Your task to perform on an android device: turn on location history Image 0: 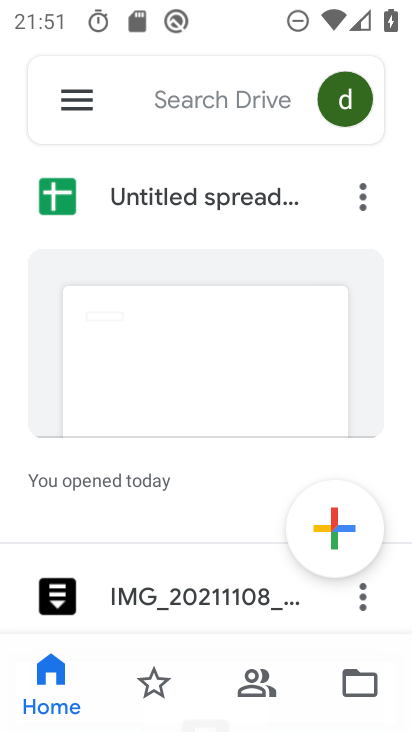
Step 0: press home button
Your task to perform on an android device: turn on location history Image 1: 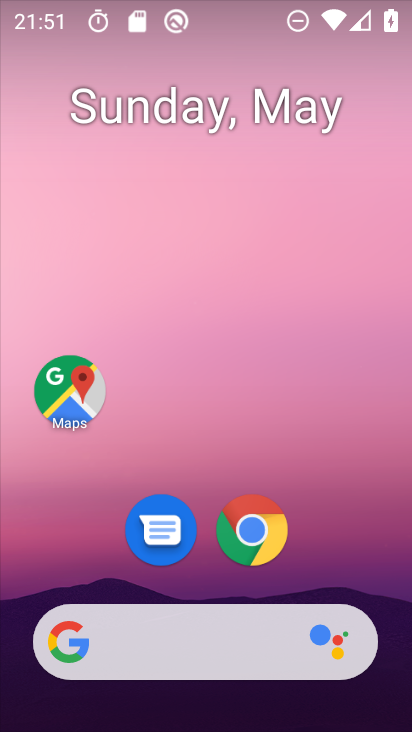
Step 1: drag from (221, 687) to (207, 261)
Your task to perform on an android device: turn on location history Image 2: 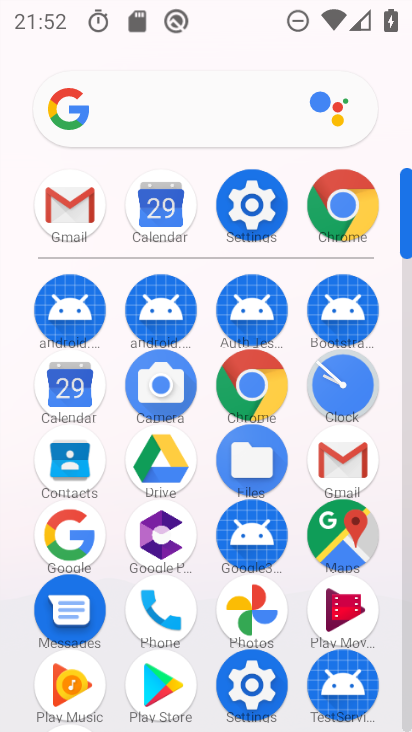
Step 2: click (264, 218)
Your task to perform on an android device: turn on location history Image 3: 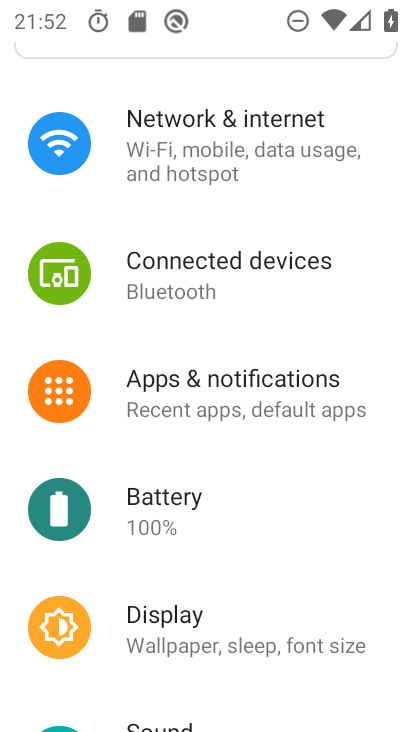
Step 3: drag from (179, 110) to (204, 289)
Your task to perform on an android device: turn on location history Image 4: 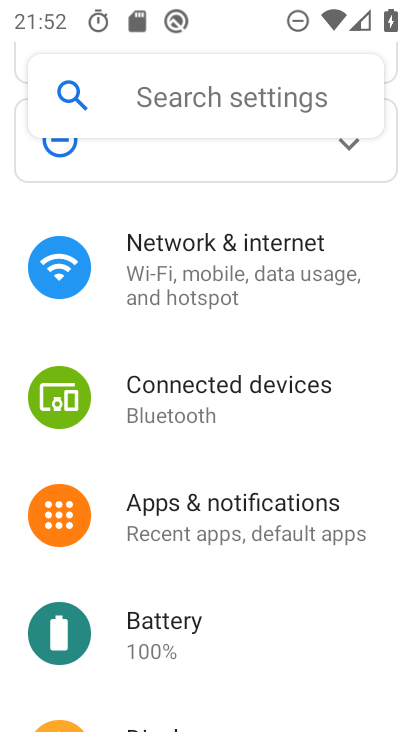
Step 4: click (183, 105)
Your task to perform on an android device: turn on location history Image 5: 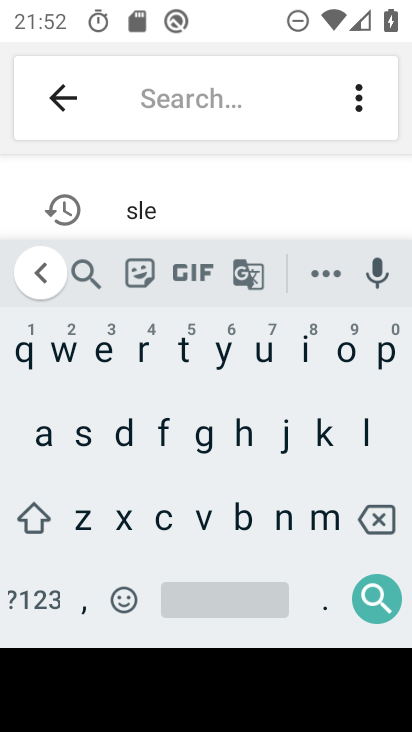
Step 5: drag from (226, 183) to (221, 105)
Your task to perform on an android device: turn on location history Image 6: 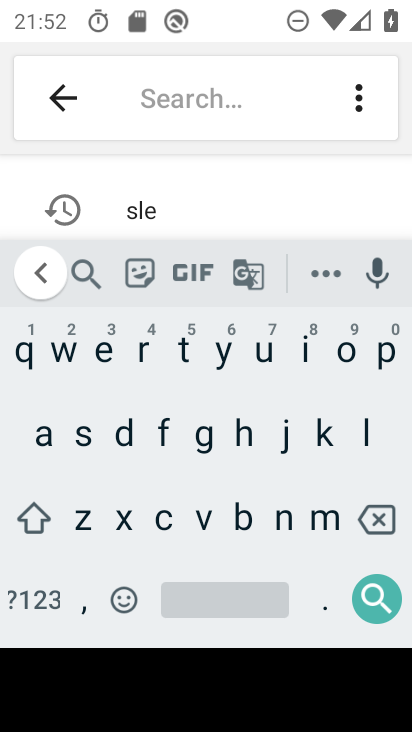
Step 6: press back button
Your task to perform on an android device: turn on location history Image 7: 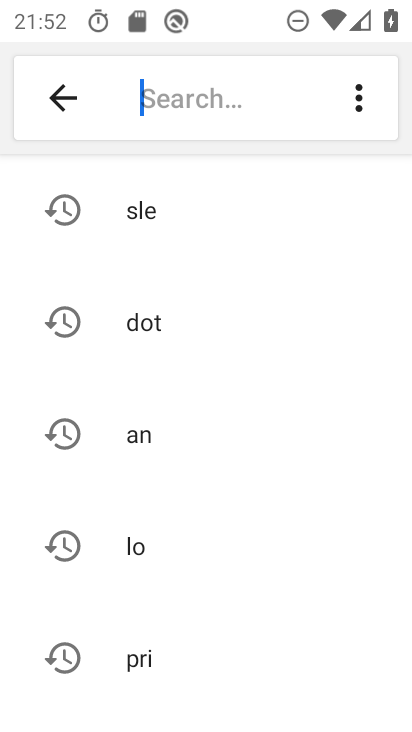
Step 7: click (145, 553)
Your task to perform on an android device: turn on location history Image 8: 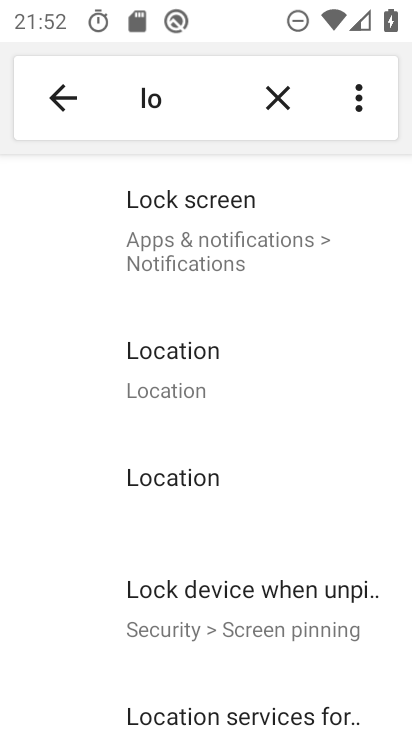
Step 8: click (188, 353)
Your task to perform on an android device: turn on location history Image 9: 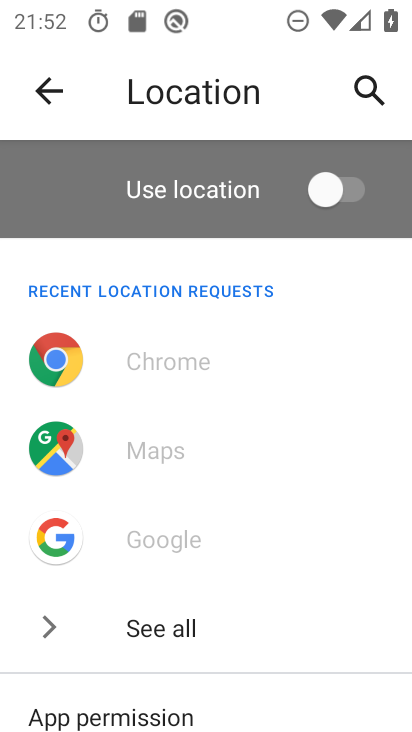
Step 9: click (353, 193)
Your task to perform on an android device: turn on location history Image 10: 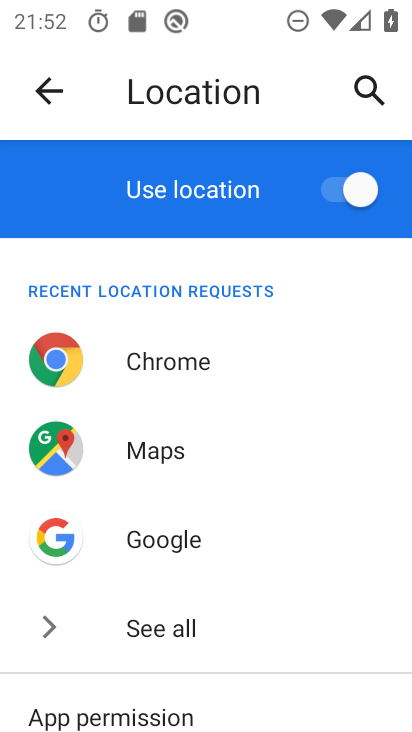
Step 10: task complete